Your task to perform on an android device: check google app version Image 0: 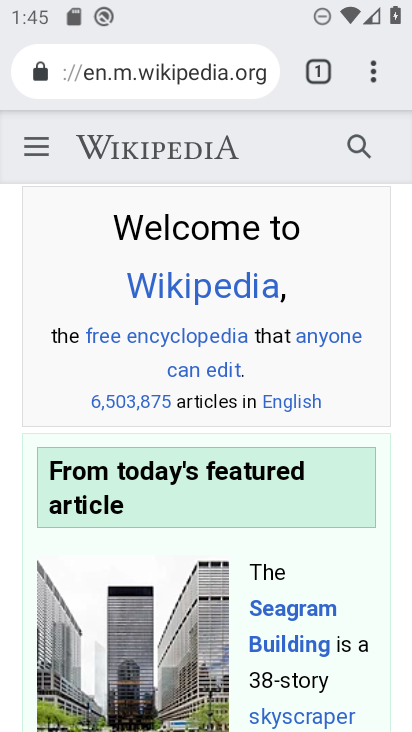
Step 0: press home button
Your task to perform on an android device: check google app version Image 1: 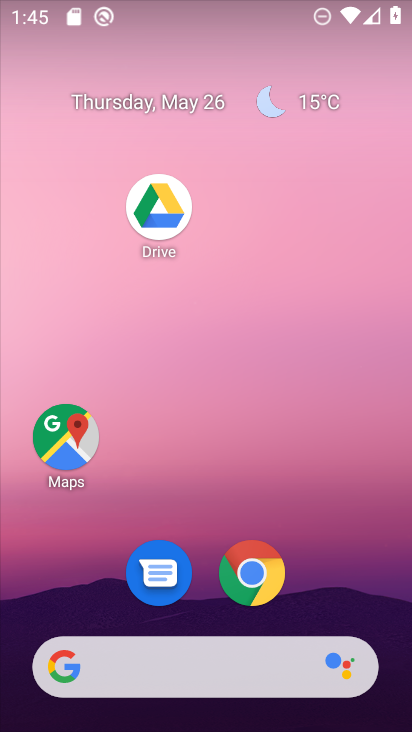
Step 1: drag from (368, 611) to (263, 90)
Your task to perform on an android device: check google app version Image 2: 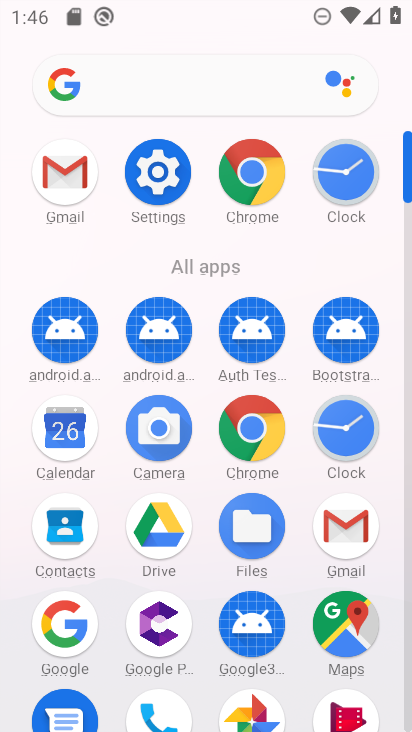
Step 2: click (62, 614)
Your task to perform on an android device: check google app version Image 3: 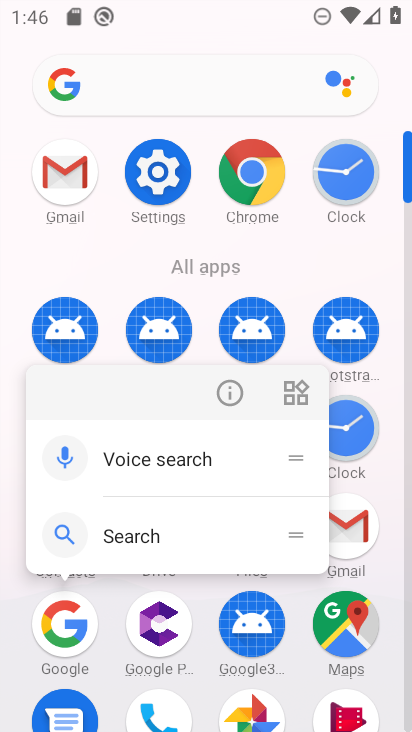
Step 3: click (220, 387)
Your task to perform on an android device: check google app version Image 4: 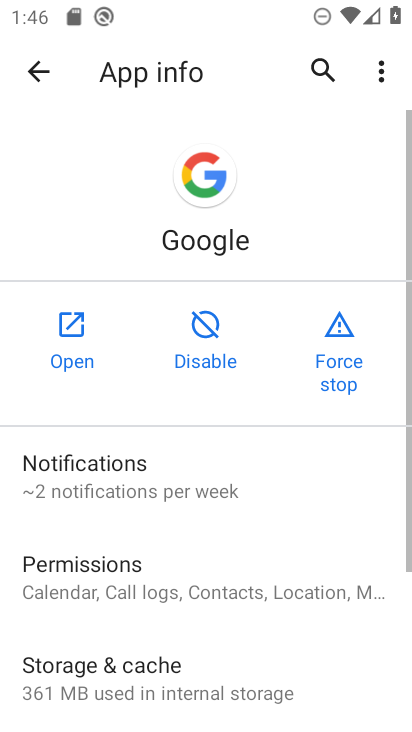
Step 4: drag from (251, 701) to (264, 215)
Your task to perform on an android device: check google app version Image 5: 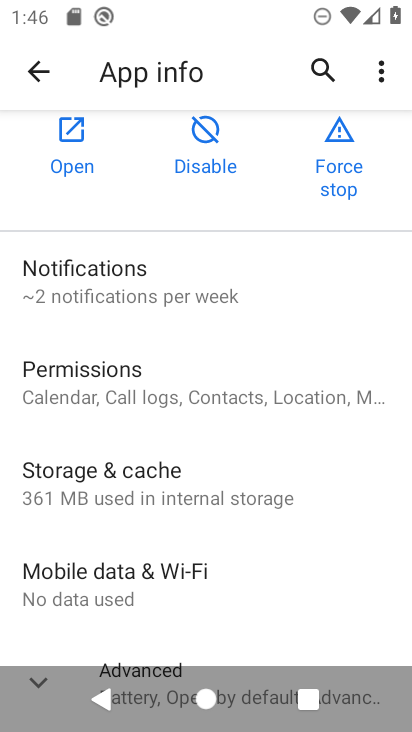
Step 5: drag from (164, 633) to (216, 257)
Your task to perform on an android device: check google app version Image 6: 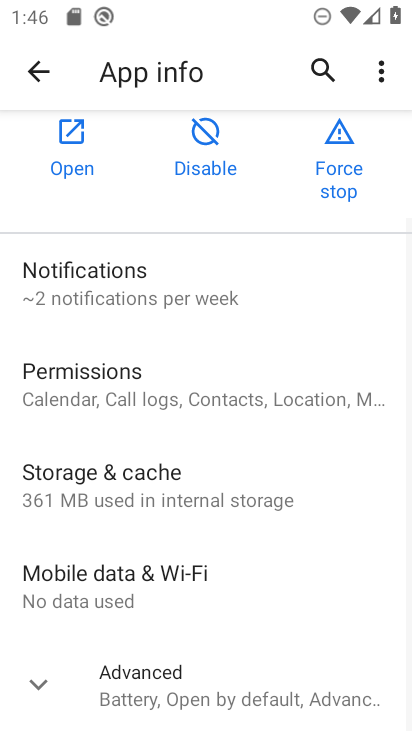
Step 6: click (155, 662)
Your task to perform on an android device: check google app version Image 7: 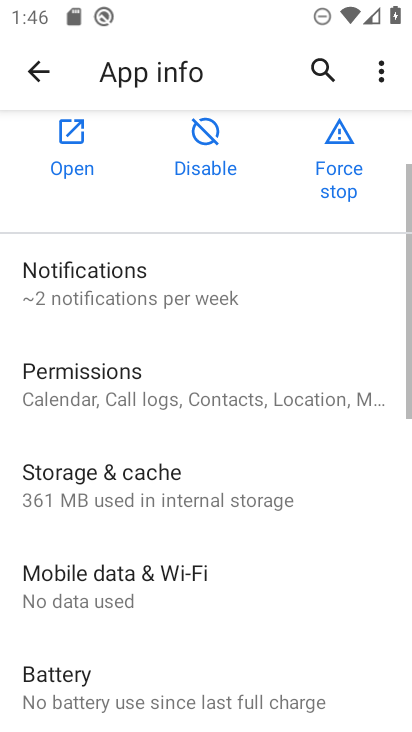
Step 7: task complete